Your task to perform on an android device: Go to location settings Image 0: 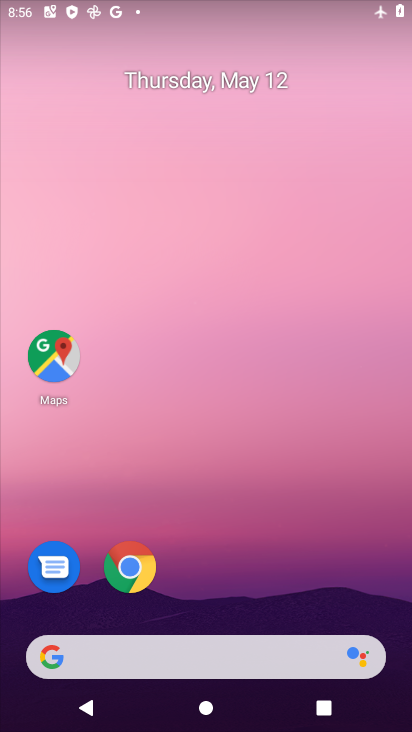
Step 0: drag from (258, 638) to (248, 217)
Your task to perform on an android device: Go to location settings Image 1: 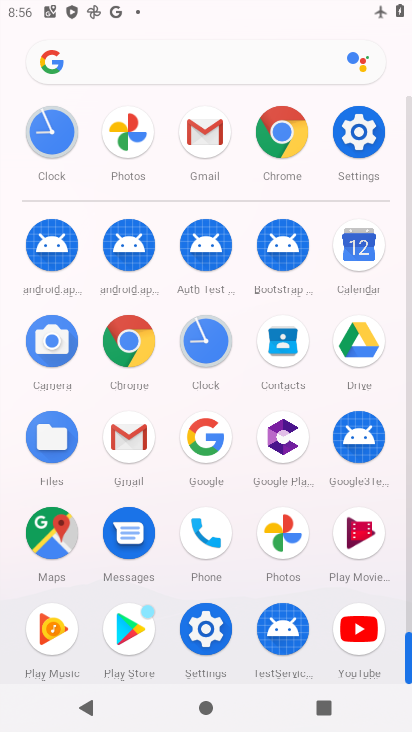
Step 1: click (358, 146)
Your task to perform on an android device: Go to location settings Image 2: 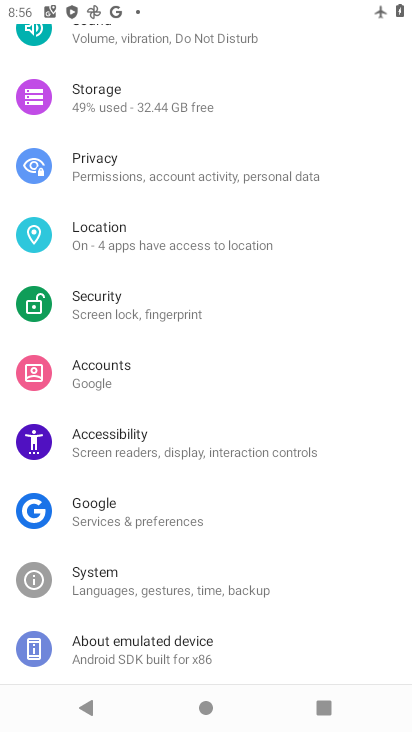
Step 2: click (147, 225)
Your task to perform on an android device: Go to location settings Image 3: 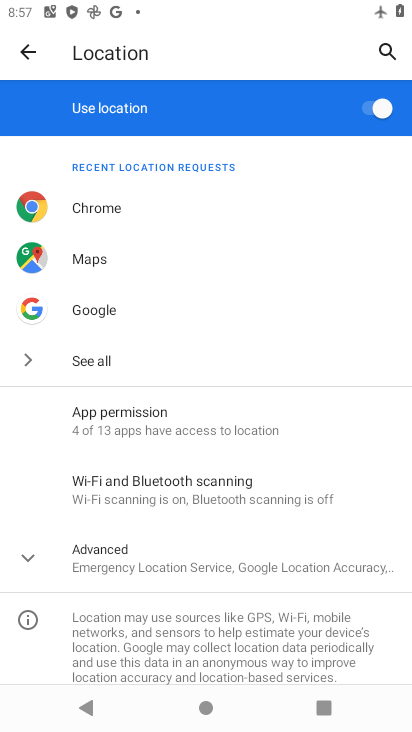
Step 3: click (211, 565)
Your task to perform on an android device: Go to location settings Image 4: 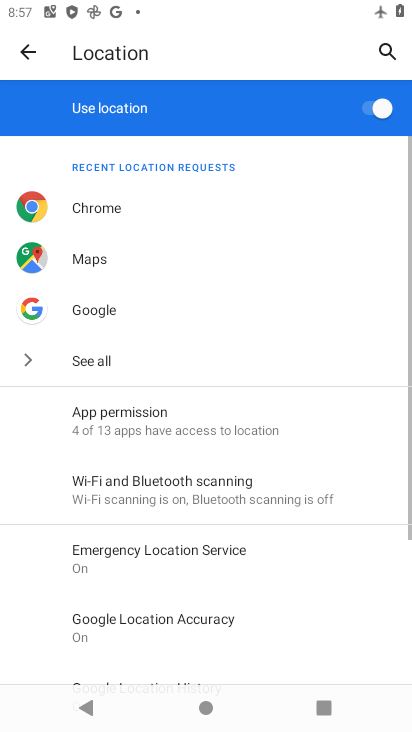
Step 4: task complete